Your task to perform on an android device: delete browsing data in the chrome app Image 0: 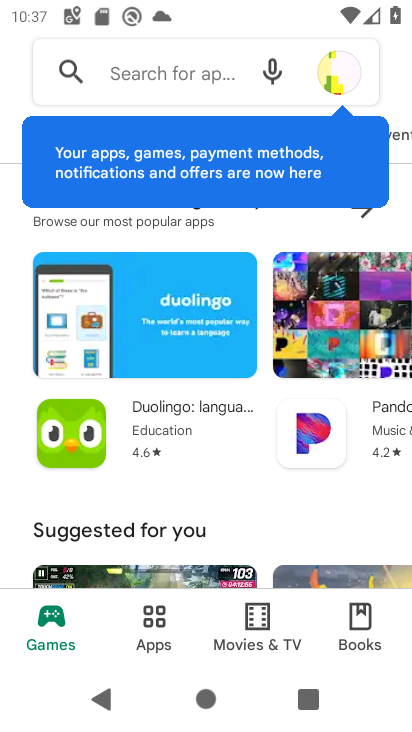
Step 0: press home button
Your task to perform on an android device: delete browsing data in the chrome app Image 1: 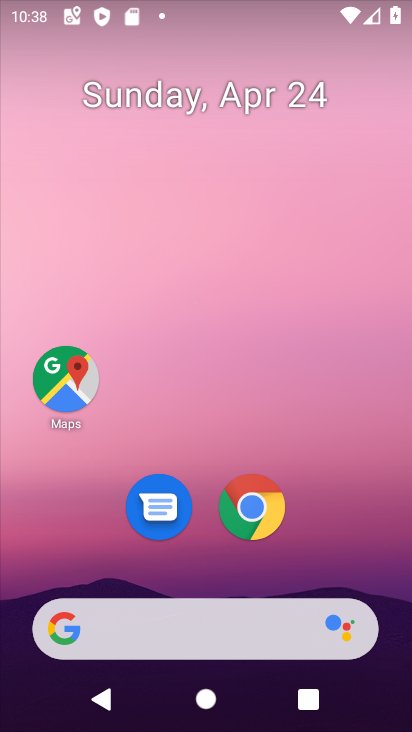
Step 1: click (233, 509)
Your task to perform on an android device: delete browsing data in the chrome app Image 2: 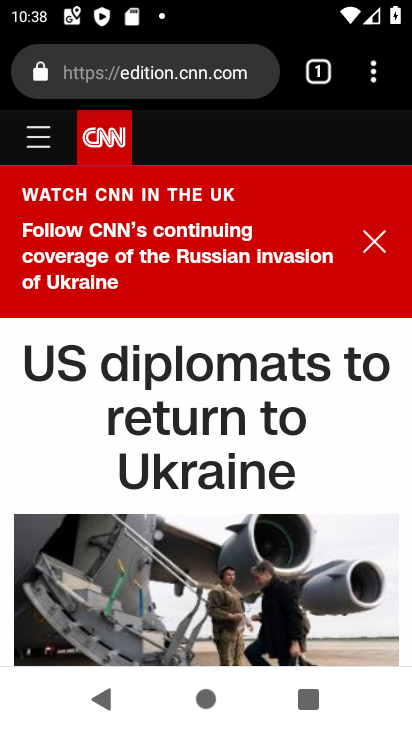
Step 2: click (377, 73)
Your task to perform on an android device: delete browsing data in the chrome app Image 3: 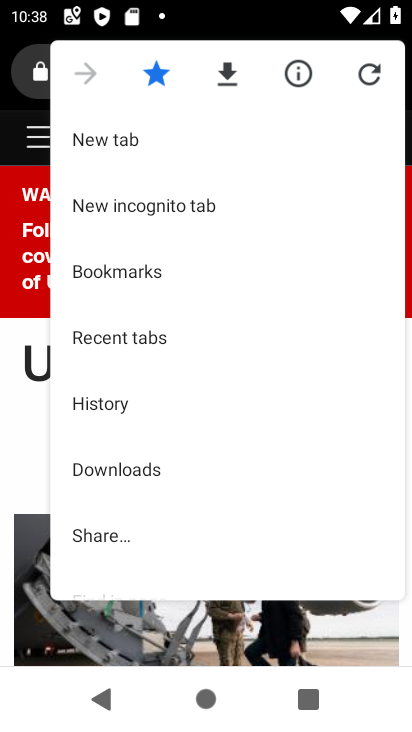
Step 3: drag from (197, 521) to (158, 201)
Your task to perform on an android device: delete browsing data in the chrome app Image 4: 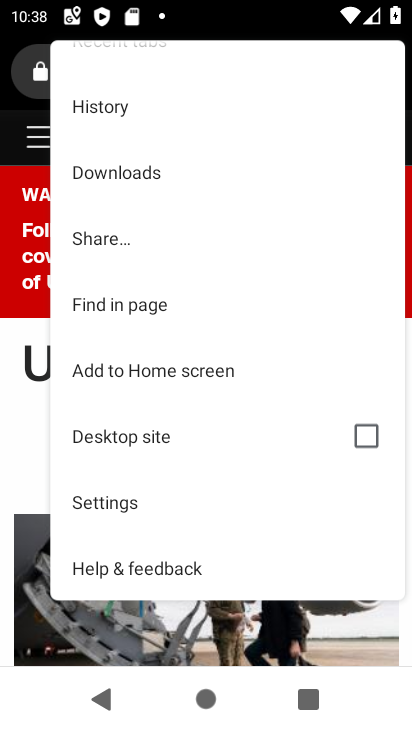
Step 4: click (112, 100)
Your task to perform on an android device: delete browsing data in the chrome app Image 5: 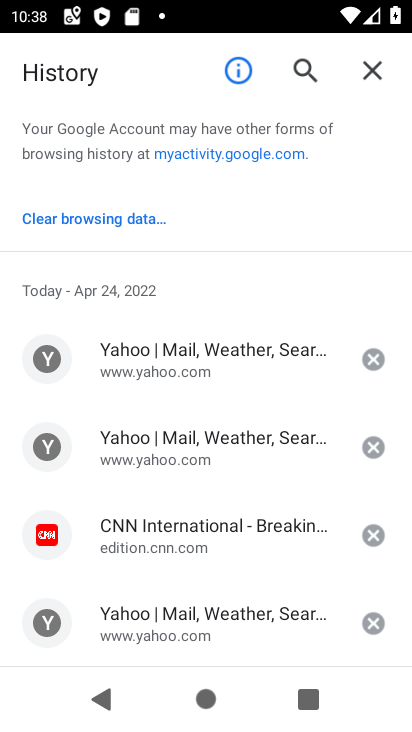
Step 5: click (91, 220)
Your task to perform on an android device: delete browsing data in the chrome app Image 6: 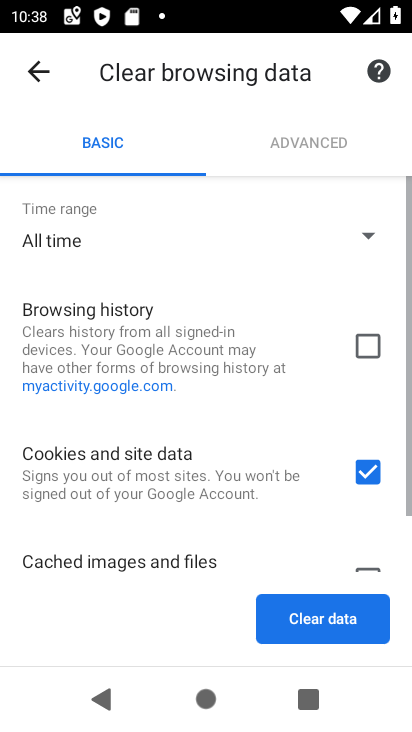
Step 6: click (358, 342)
Your task to perform on an android device: delete browsing data in the chrome app Image 7: 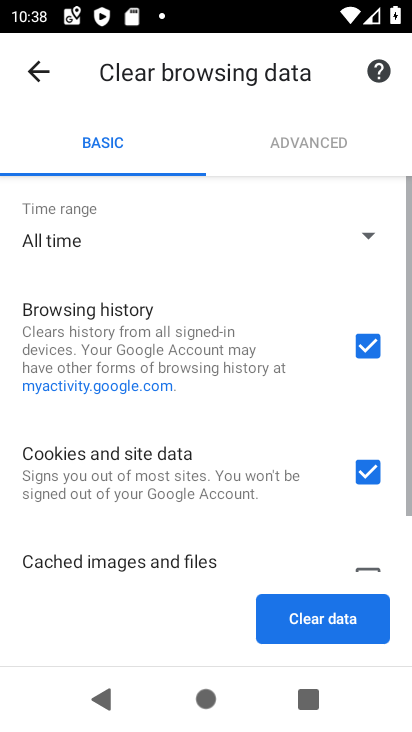
Step 7: click (366, 611)
Your task to perform on an android device: delete browsing data in the chrome app Image 8: 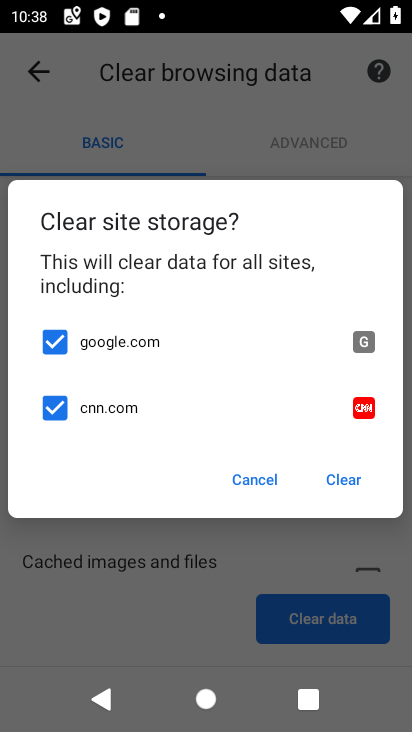
Step 8: click (352, 491)
Your task to perform on an android device: delete browsing data in the chrome app Image 9: 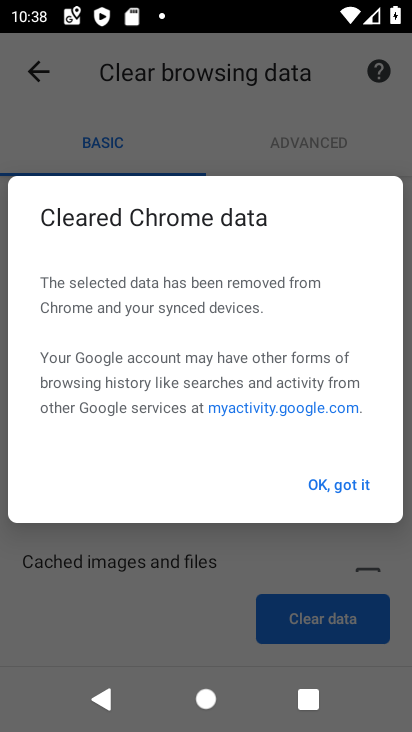
Step 9: click (352, 491)
Your task to perform on an android device: delete browsing data in the chrome app Image 10: 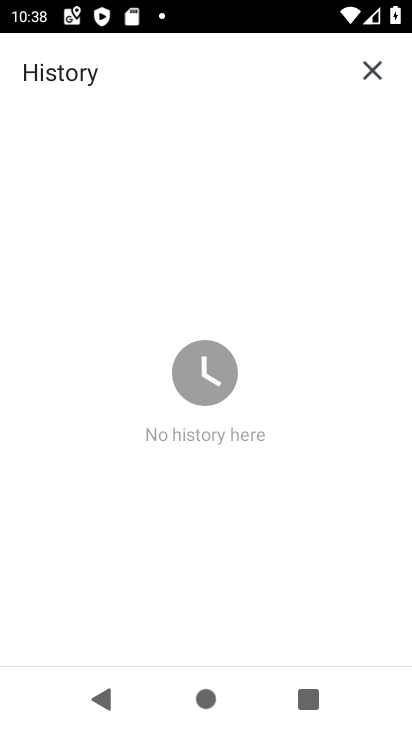
Step 10: task complete